Your task to perform on an android device: What's the weather? Image 0: 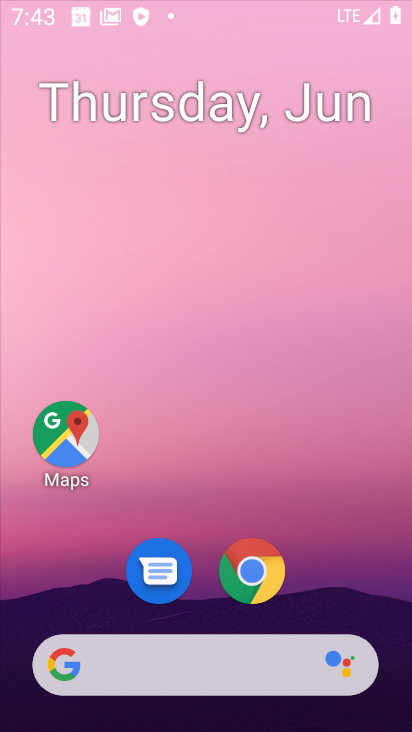
Step 0: click (41, 65)
Your task to perform on an android device: What's the weather? Image 1: 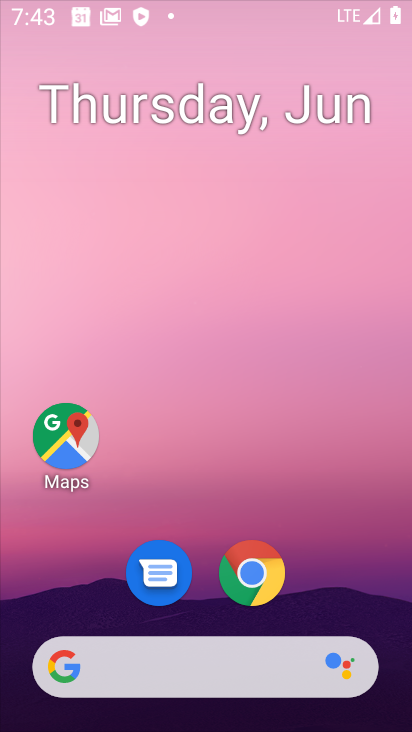
Step 1: drag from (316, 584) to (282, 201)
Your task to perform on an android device: What's the weather? Image 2: 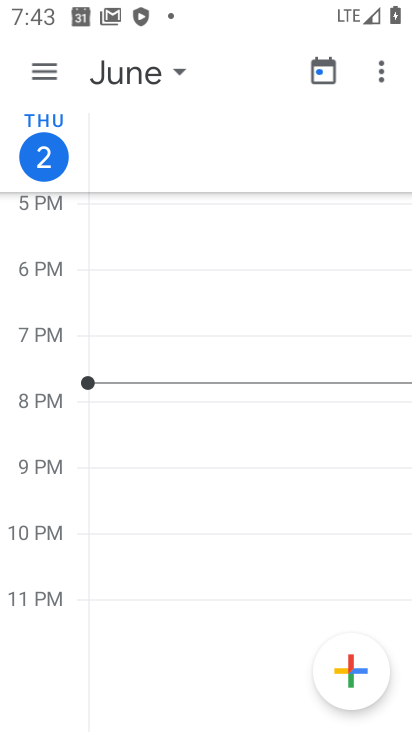
Step 2: press home button
Your task to perform on an android device: What's the weather? Image 3: 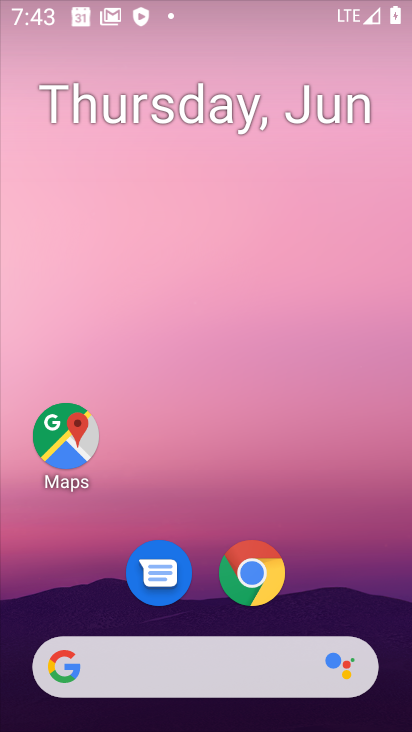
Step 3: drag from (270, 632) to (246, 237)
Your task to perform on an android device: What's the weather? Image 4: 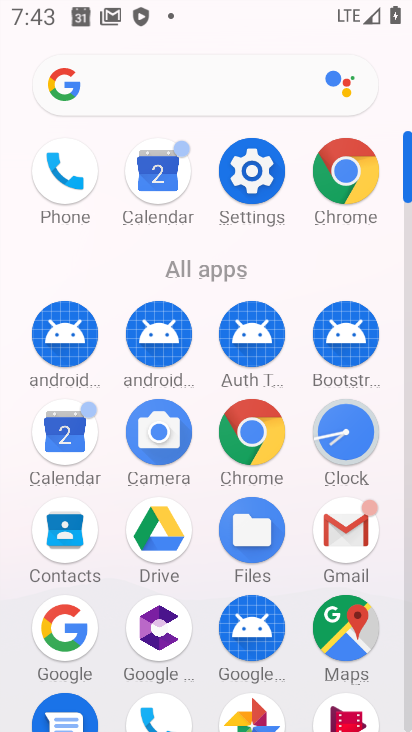
Step 4: click (341, 178)
Your task to perform on an android device: What's the weather? Image 5: 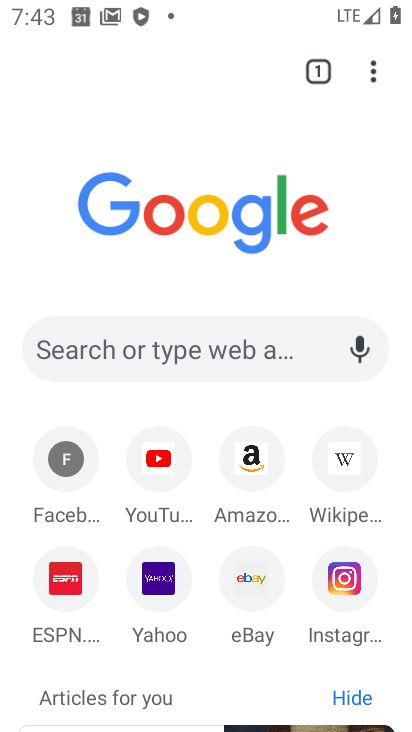
Step 5: click (203, 333)
Your task to perform on an android device: What's the weather? Image 6: 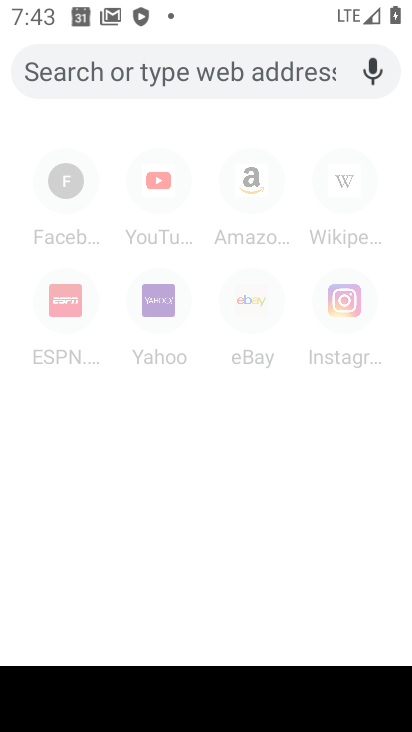
Step 6: click (126, 48)
Your task to perform on an android device: What's the weather? Image 7: 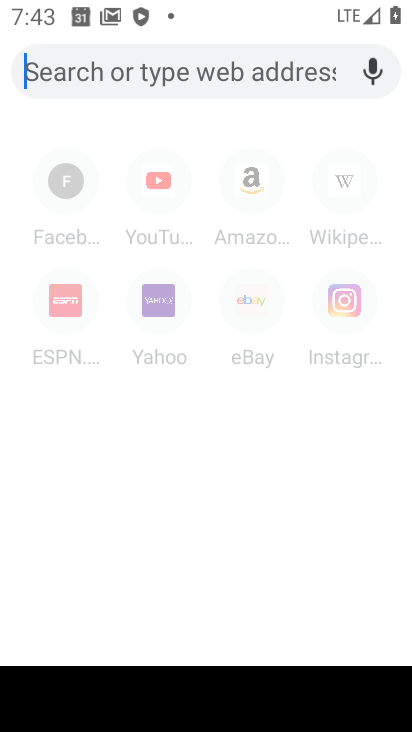
Step 7: type "What's the weather?"
Your task to perform on an android device: What's the weather? Image 8: 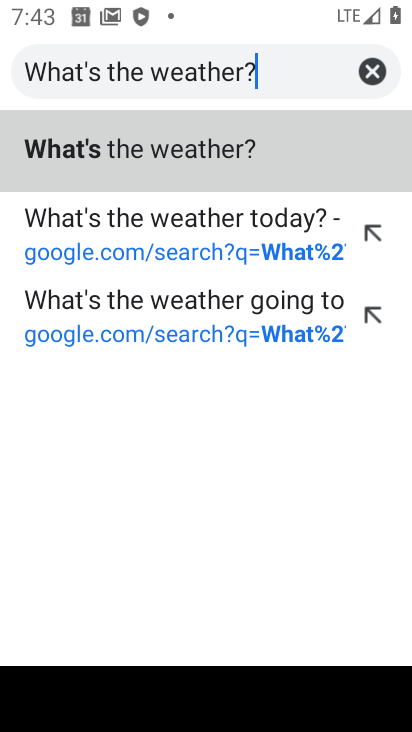
Step 8: click (100, 168)
Your task to perform on an android device: What's the weather? Image 9: 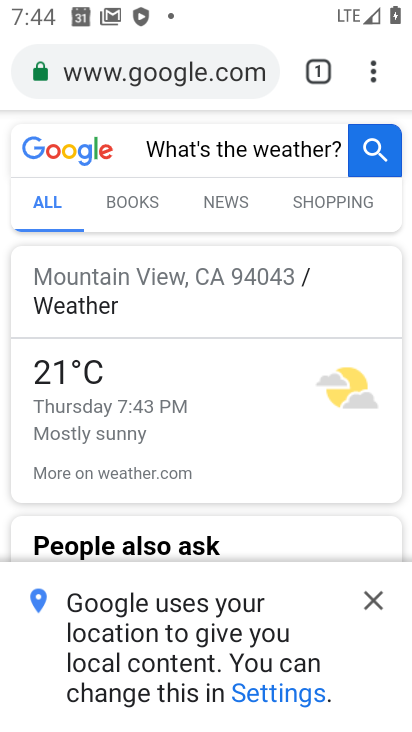
Step 9: task complete